Your task to perform on an android device: check google app version Image 0: 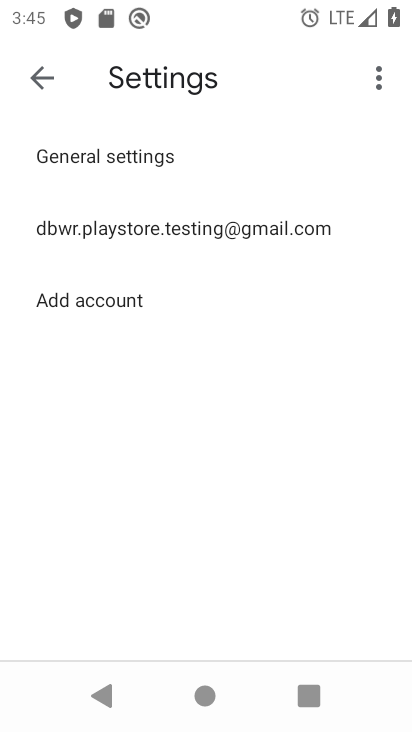
Step 0: press home button
Your task to perform on an android device: check google app version Image 1: 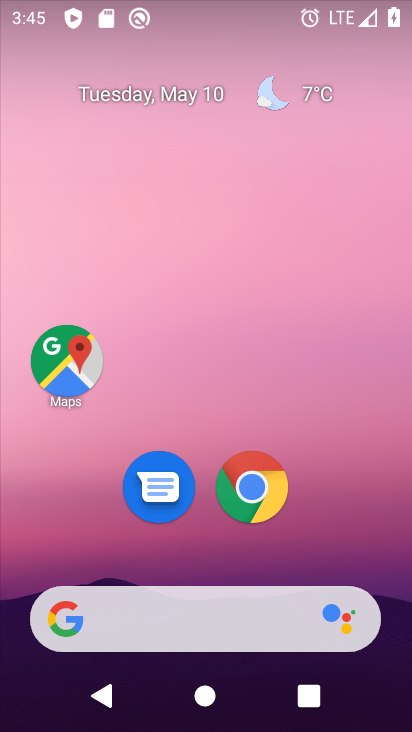
Step 1: drag from (315, 508) to (256, 136)
Your task to perform on an android device: check google app version Image 2: 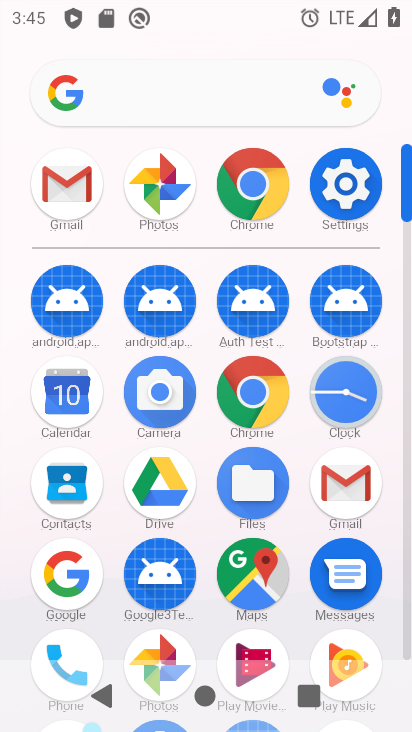
Step 2: click (69, 568)
Your task to perform on an android device: check google app version Image 3: 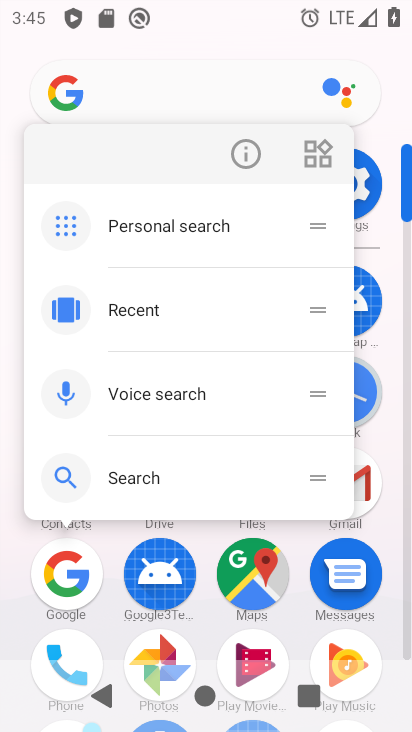
Step 3: click (245, 146)
Your task to perform on an android device: check google app version Image 4: 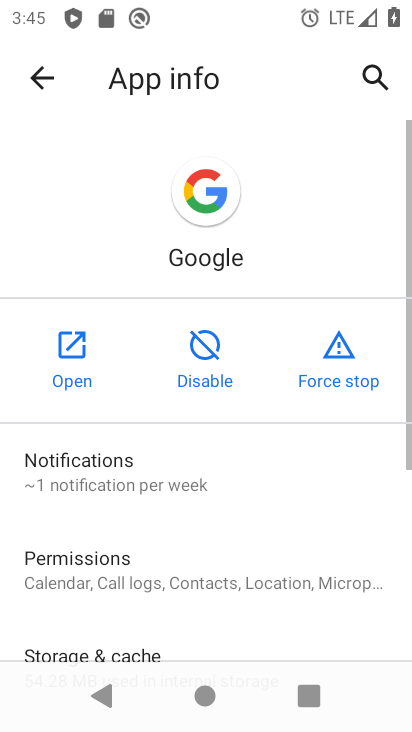
Step 4: drag from (284, 585) to (178, 12)
Your task to perform on an android device: check google app version Image 5: 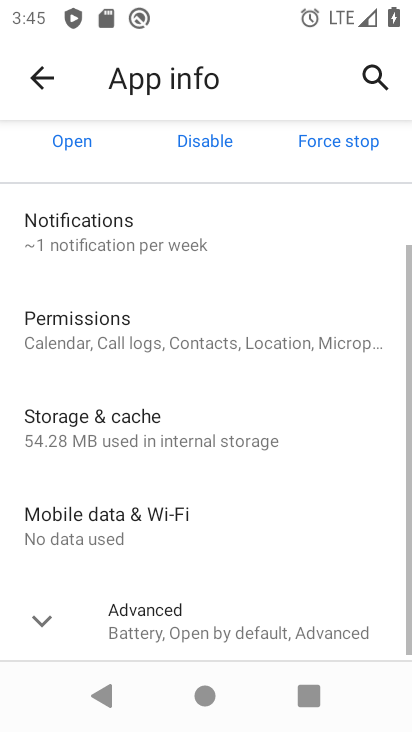
Step 5: click (184, 615)
Your task to perform on an android device: check google app version Image 6: 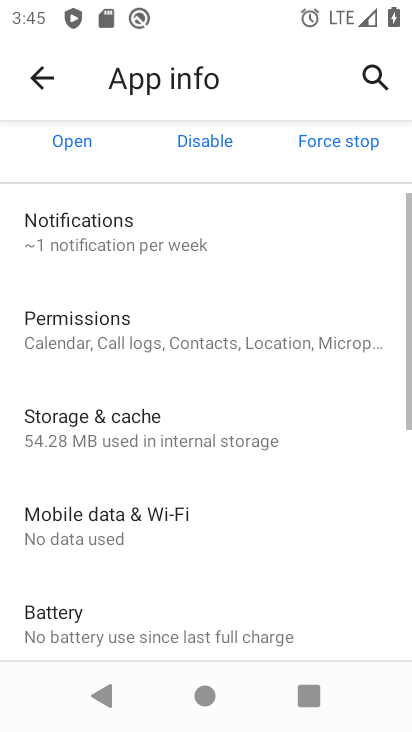
Step 6: task complete